Your task to perform on an android device: make emails show in primary in the gmail app Image 0: 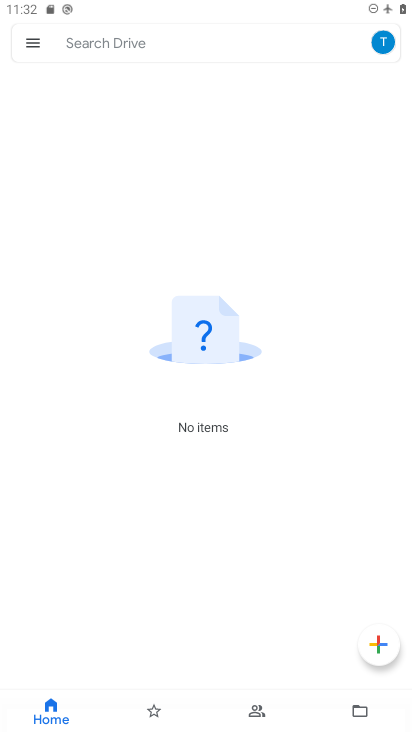
Step 0: press home button
Your task to perform on an android device: make emails show in primary in the gmail app Image 1: 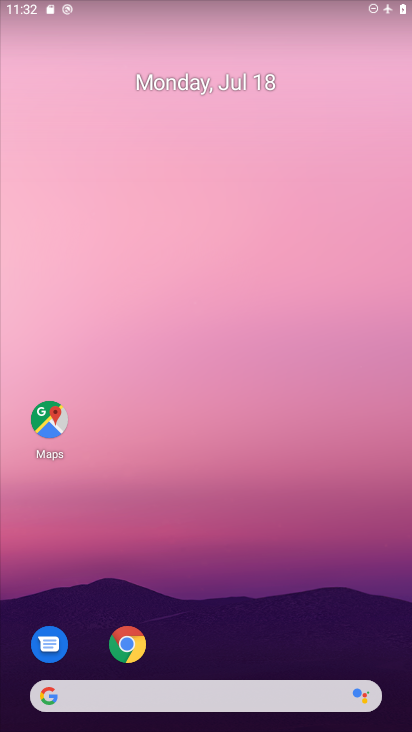
Step 1: drag from (235, 656) to (196, 14)
Your task to perform on an android device: make emails show in primary in the gmail app Image 2: 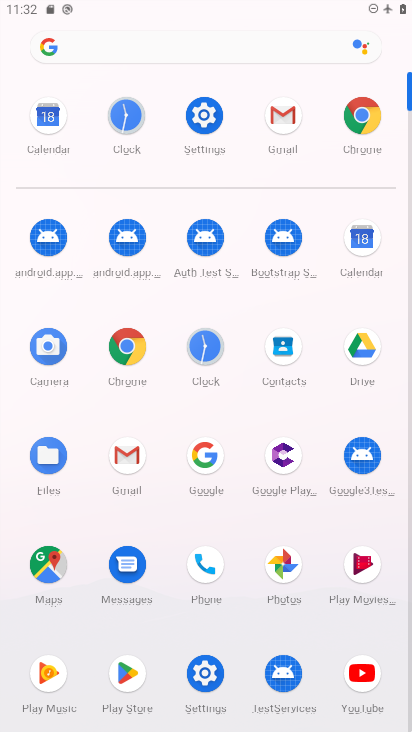
Step 2: click (122, 450)
Your task to perform on an android device: make emails show in primary in the gmail app Image 3: 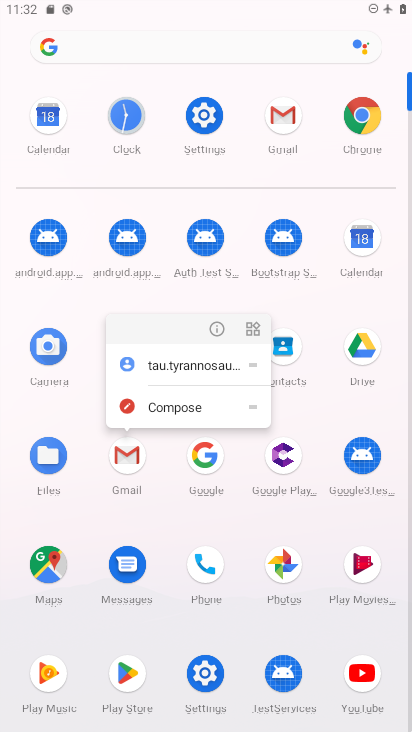
Step 3: click (121, 450)
Your task to perform on an android device: make emails show in primary in the gmail app Image 4: 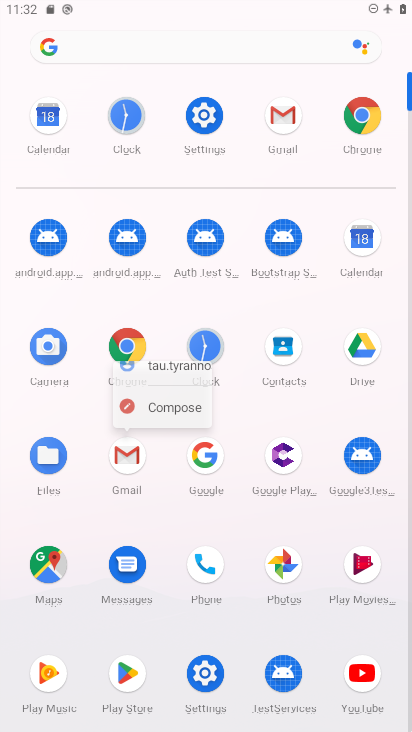
Step 4: click (121, 450)
Your task to perform on an android device: make emails show in primary in the gmail app Image 5: 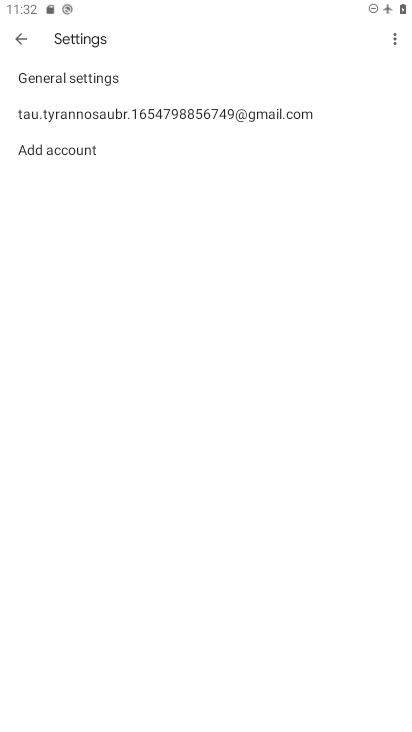
Step 5: click (24, 31)
Your task to perform on an android device: make emails show in primary in the gmail app Image 6: 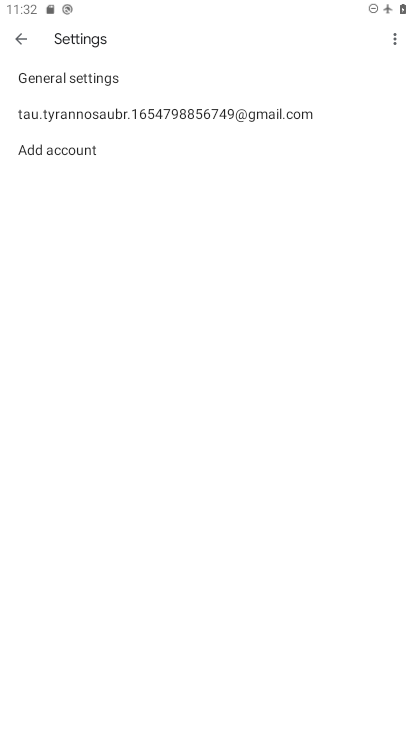
Step 6: click (18, 44)
Your task to perform on an android device: make emails show in primary in the gmail app Image 7: 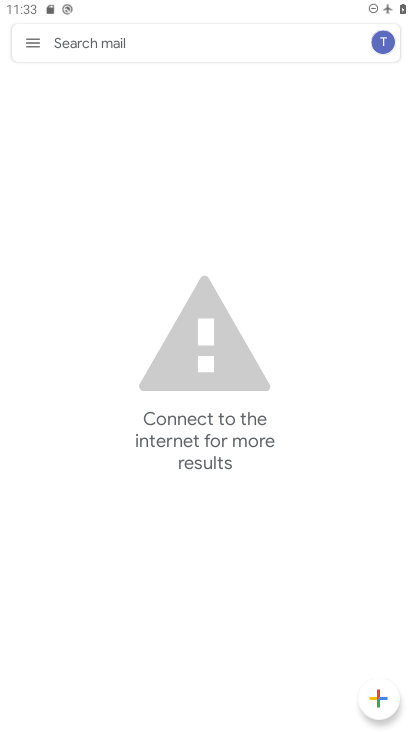
Step 7: click (32, 41)
Your task to perform on an android device: make emails show in primary in the gmail app Image 8: 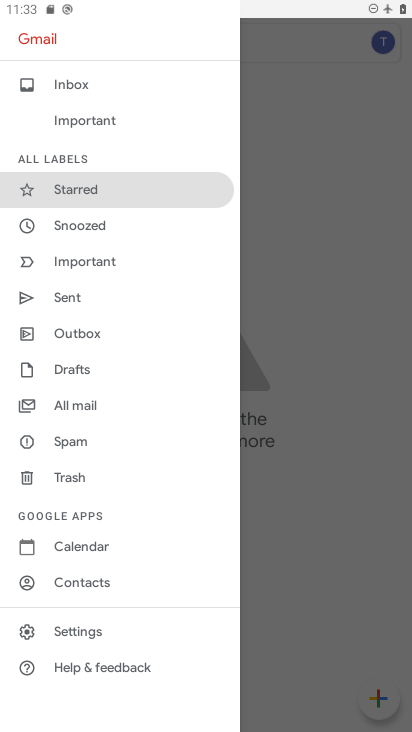
Step 8: drag from (58, 107) to (61, 238)
Your task to perform on an android device: make emails show in primary in the gmail app Image 9: 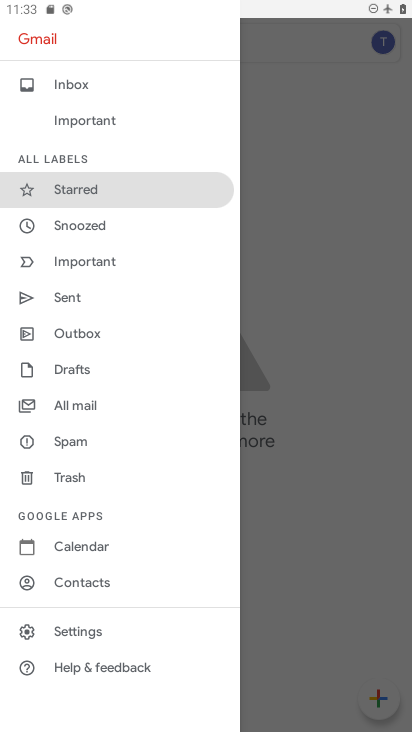
Step 9: click (83, 620)
Your task to perform on an android device: make emails show in primary in the gmail app Image 10: 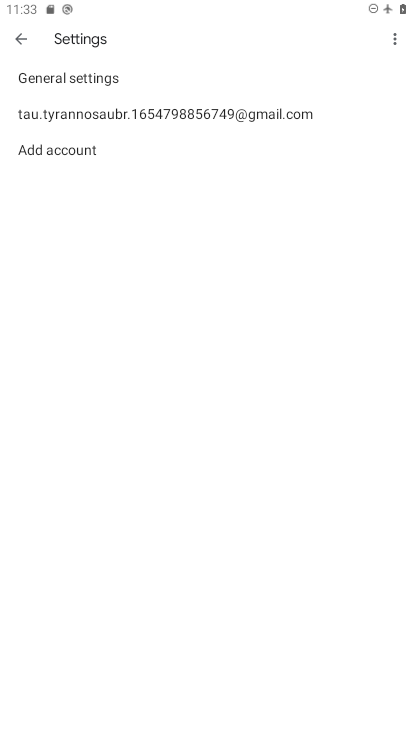
Step 10: click (84, 121)
Your task to perform on an android device: make emails show in primary in the gmail app Image 11: 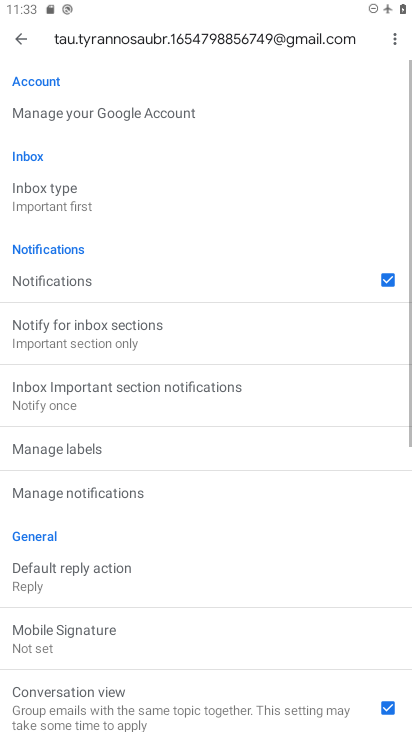
Step 11: click (68, 205)
Your task to perform on an android device: make emails show in primary in the gmail app Image 12: 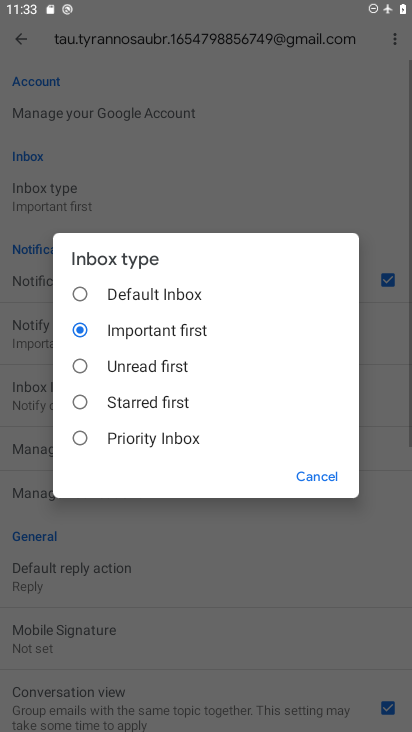
Step 12: click (130, 296)
Your task to perform on an android device: make emails show in primary in the gmail app Image 13: 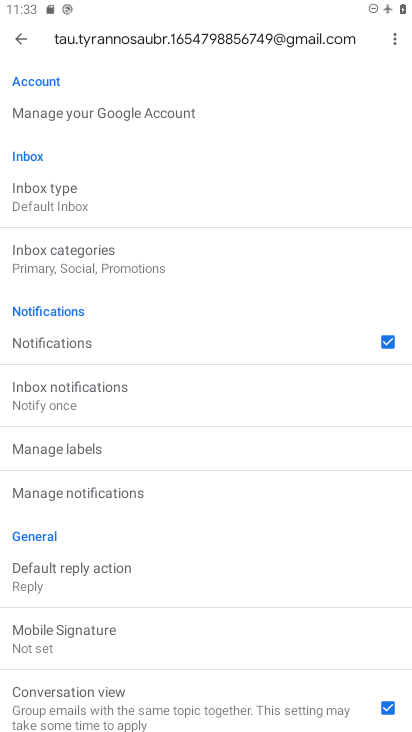
Step 13: click (18, 46)
Your task to perform on an android device: make emails show in primary in the gmail app Image 14: 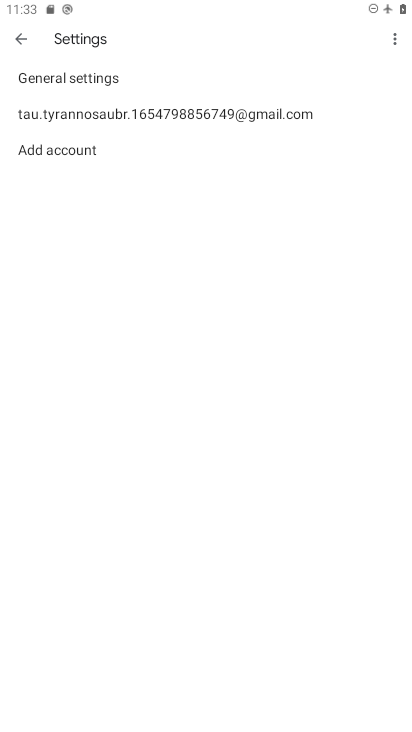
Step 14: click (19, 36)
Your task to perform on an android device: make emails show in primary in the gmail app Image 15: 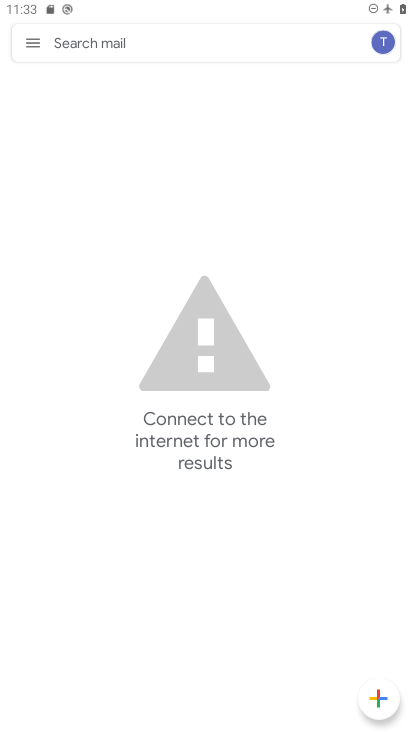
Step 15: click (28, 39)
Your task to perform on an android device: make emails show in primary in the gmail app Image 16: 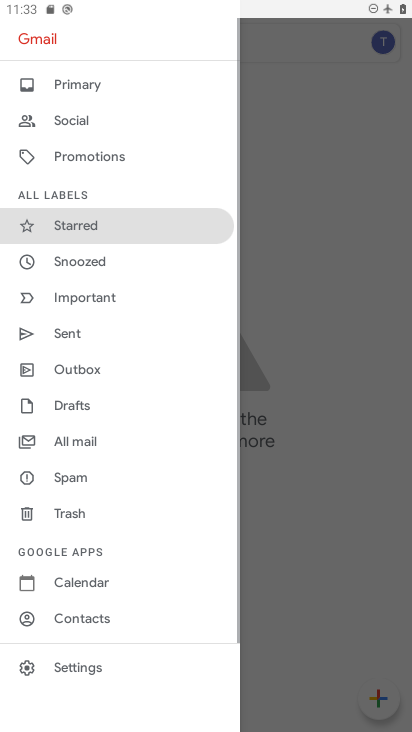
Step 16: click (93, 83)
Your task to perform on an android device: make emails show in primary in the gmail app Image 17: 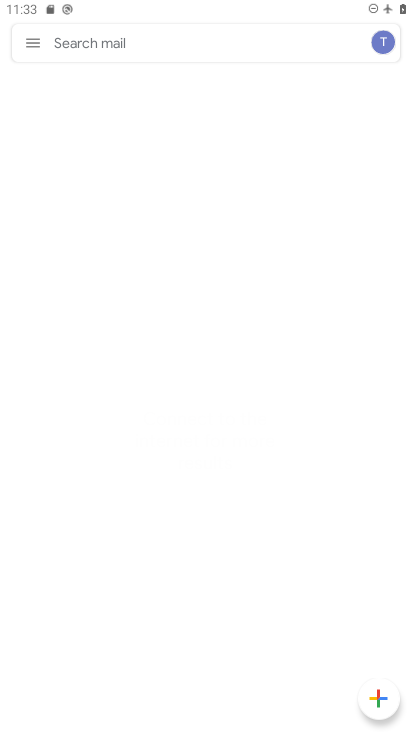
Step 17: task complete